Your task to perform on an android device: What's on my calendar tomorrow? Image 0: 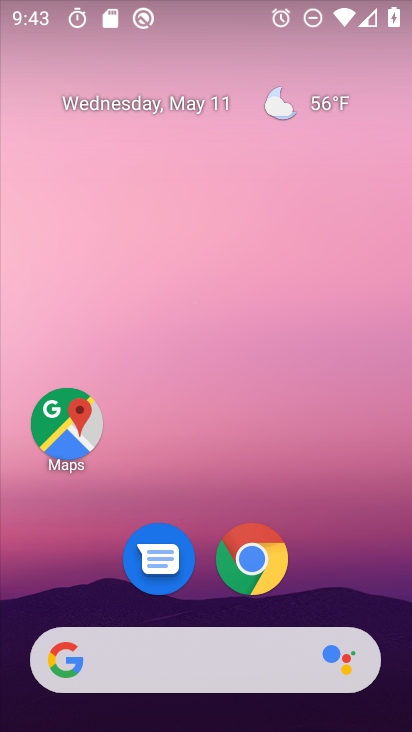
Step 0: drag from (336, 565) to (305, 134)
Your task to perform on an android device: What's on my calendar tomorrow? Image 1: 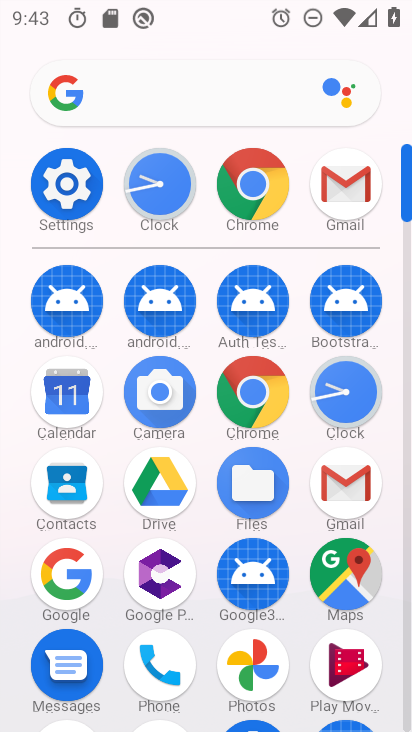
Step 1: press back button
Your task to perform on an android device: What's on my calendar tomorrow? Image 2: 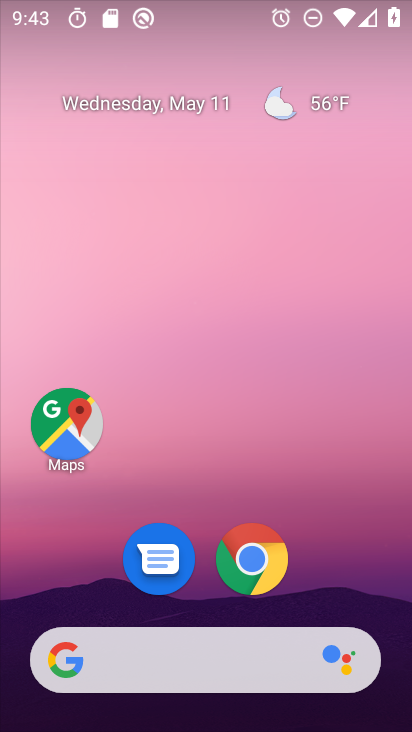
Step 2: click (144, 97)
Your task to perform on an android device: What's on my calendar tomorrow? Image 3: 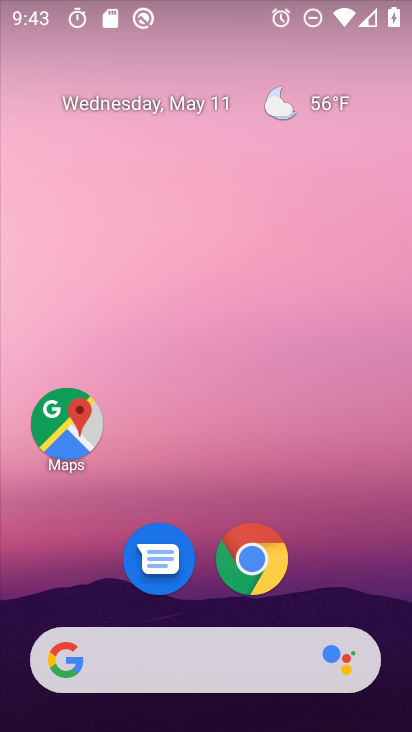
Step 3: click (135, 108)
Your task to perform on an android device: What's on my calendar tomorrow? Image 4: 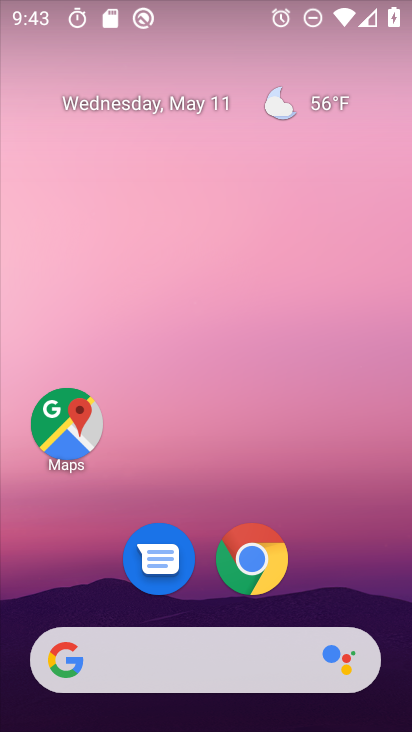
Step 4: click (176, 99)
Your task to perform on an android device: What's on my calendar tomorrow? Image 5: 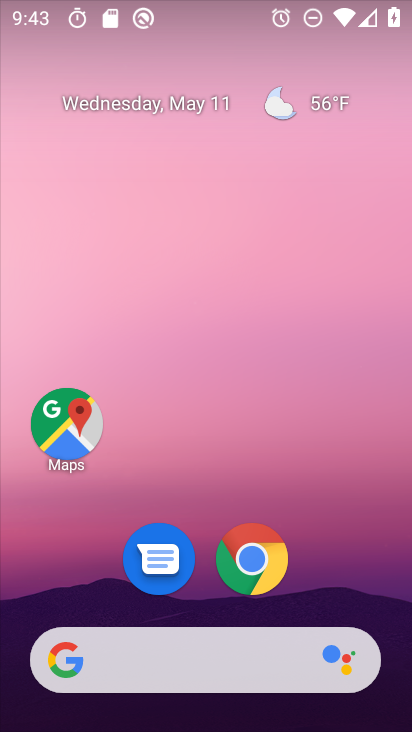
Step 5: click (176, 99)
Your task to perform on an android device: What's on my calendar tomorrow? Image 6: 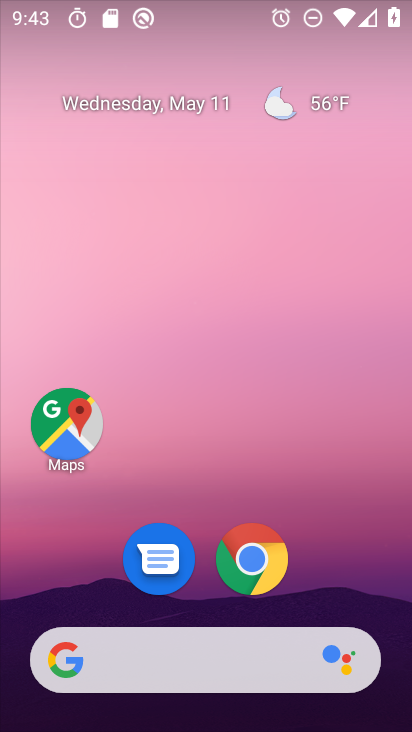
Step 6: click (159, 87)
Your task to perform on an android device: What's on my calendar tomorrow? Image 7: 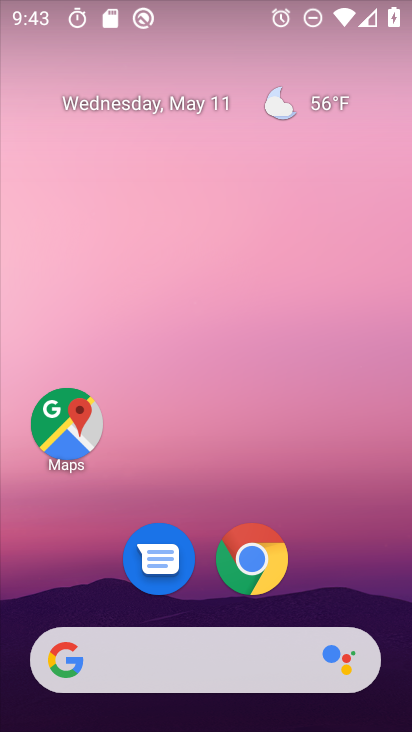
Step 7: click (159, 87)
Your task to perform on an android device: What's on my calendar tomorrow? Image 8: 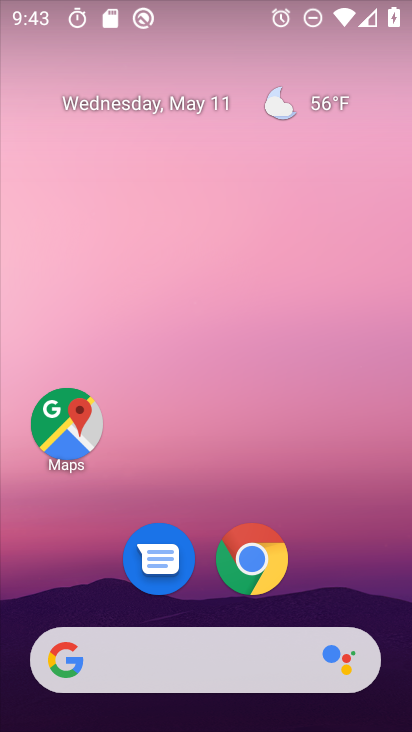
Step 8: drag from (321, 555) to (299, 115)
Your task to perform on an android device: What's on my calendar tomorrow? Image 9: 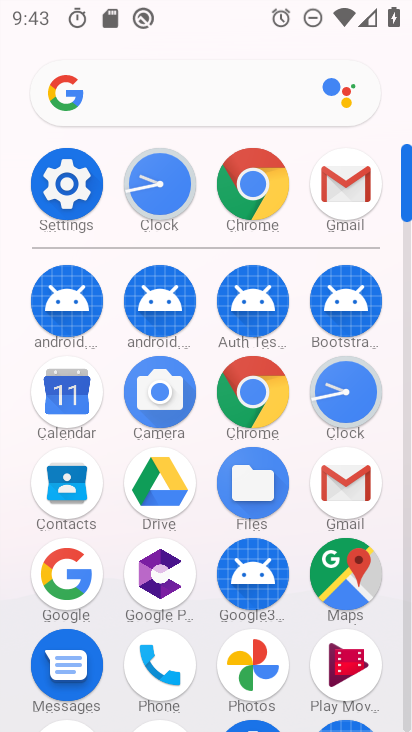
Step 9: click (55, 403)
Your task to perform on an android device: What's on my calendar tomorrow? Image 10: 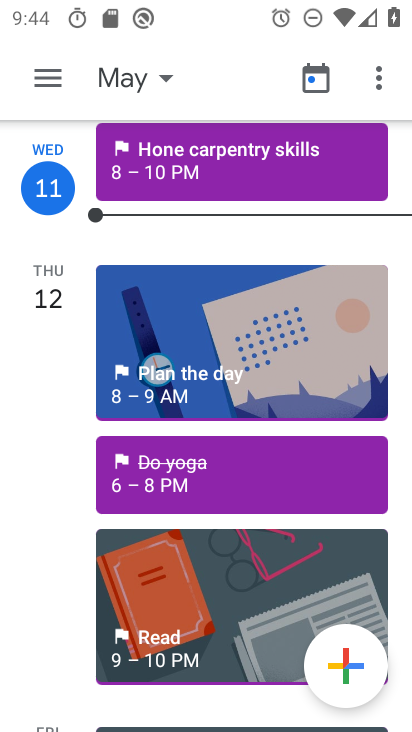
Step 10: click (61, 71)
Your task to perform on an android device: What's on my calendar tomorrow? Image 11: 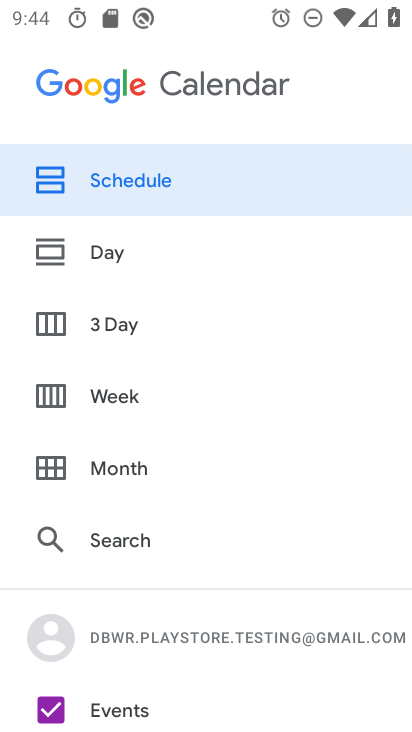
Step 11: task complete